Your task to perform on an android device: see creations saved in the google photos Image 0: 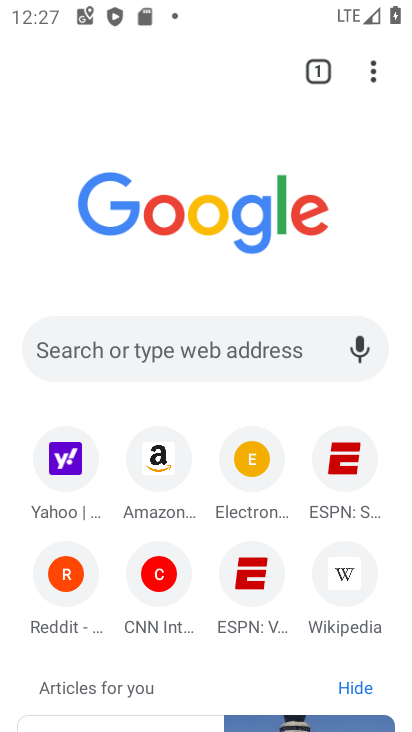
Step 0: press home button
Your task to perform on an android device: see creations saved in the google photos Image 1: 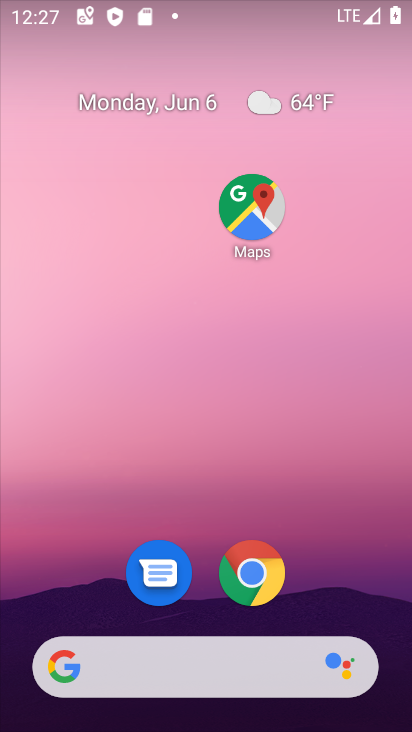
Step 1: drag from (150, 130) to (150, 67)
Your task to perform on an android device: see creations saved in the google photos Image 2: 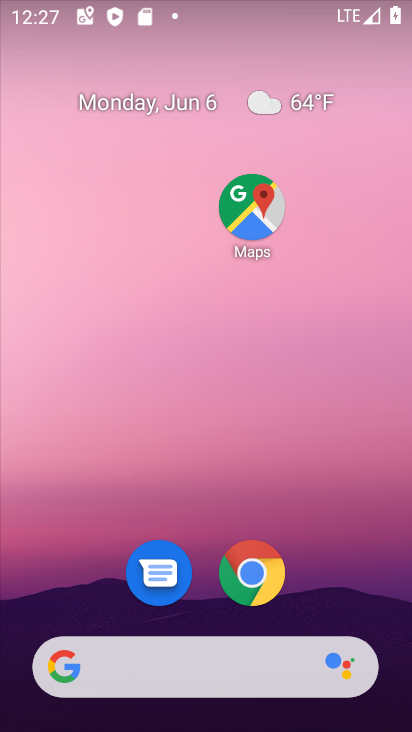
Step 2: drag from (160, 469) to (152, 15)
Your task to perform on an android device: see creations saved in the google photos Image 3: 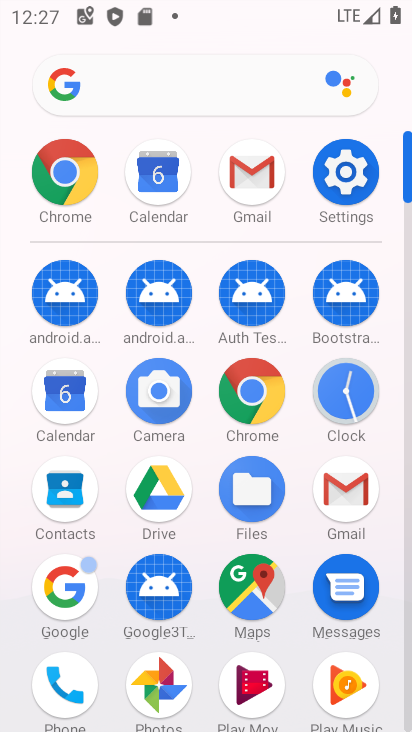
Step 3: click (163, 686)
Your task to perform on an android device: see creations saved in the google photos Image 4: 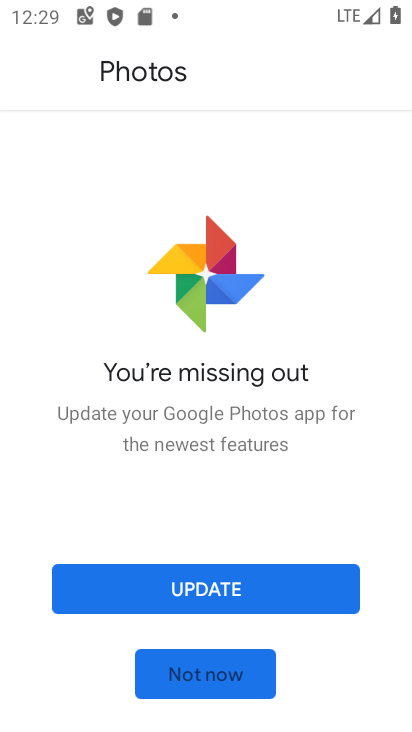
Step 4: click (227, 600)
Your task to perform on an android device: see creations saved in the google photos Image 5: 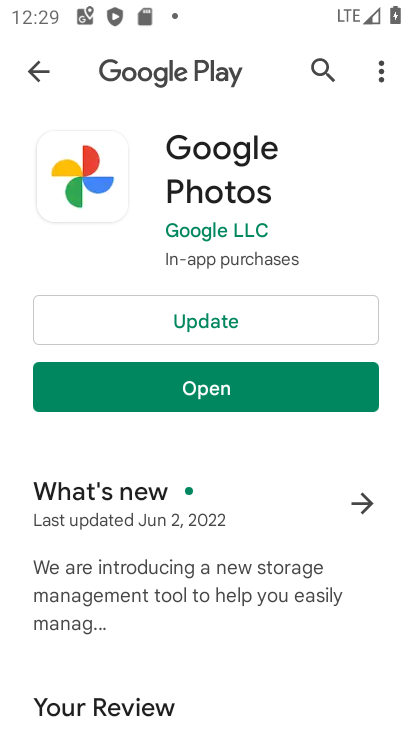
Step 5: click (231, 332)
Your task to perform on an android device: see creations saved in the google photos Image 6: 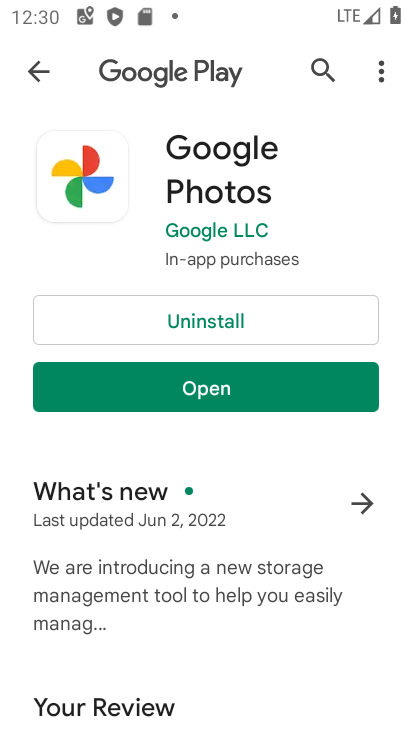
Step 6: click (278, 400)
Your task to perform on an android device: see creations saved in the google photos Image 7: 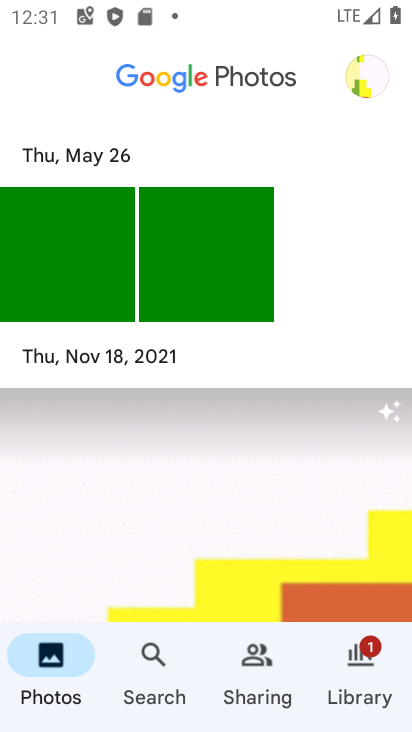
Step 7: click (145, 669)
Your task to perform on an android device: see creations saved in the google photos Image 8: 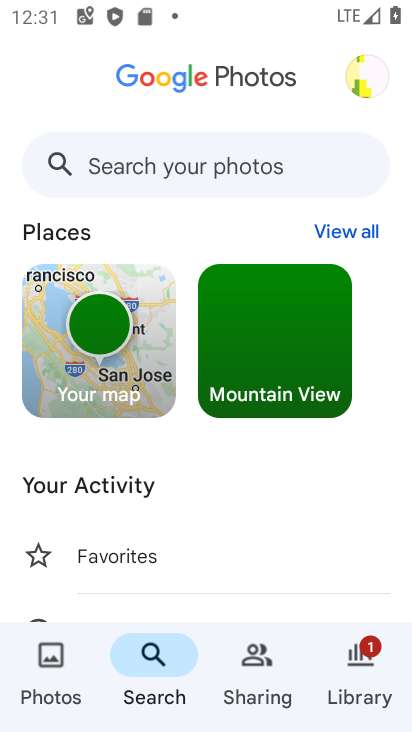
Step 8: drag from (185, 534) to (317, 45)
Your task to perform on an android device: see creations saved in the google photos Image 9: 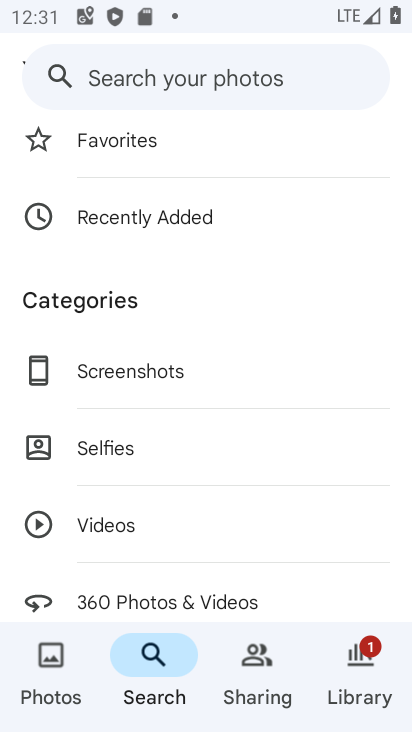
Step 9: drag from (176, 543) to (243, 136)
Your task to perform on an android device: see creations saved in the google photos Image 10: 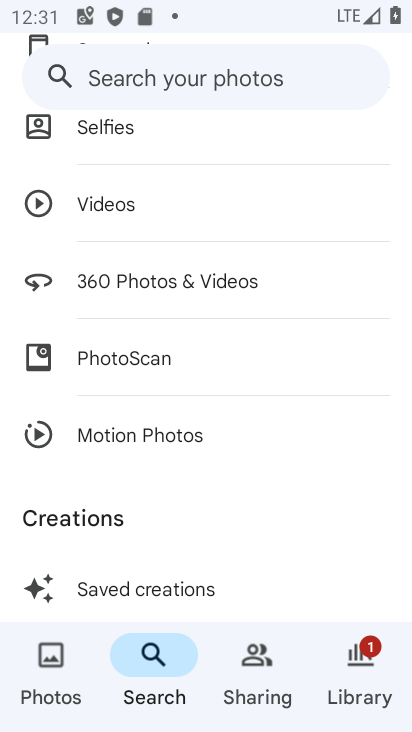
Step 10: click (142, 592)
Your task to perform on an android device: see creations saved in the google photos Image 11: 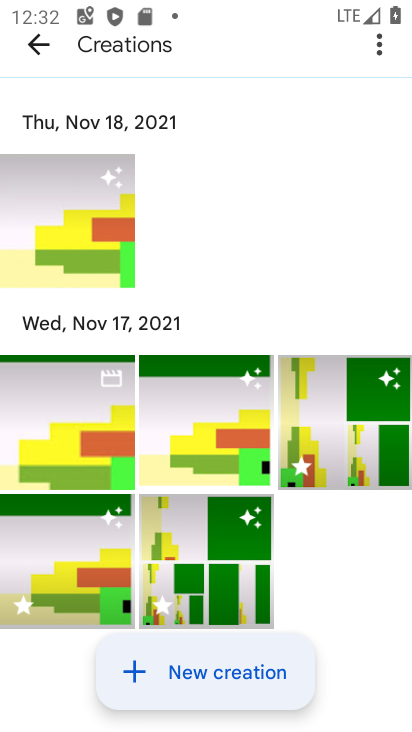
Step 11: task complete